Your task to perform on an android device: Open Google Chrome Image 0: 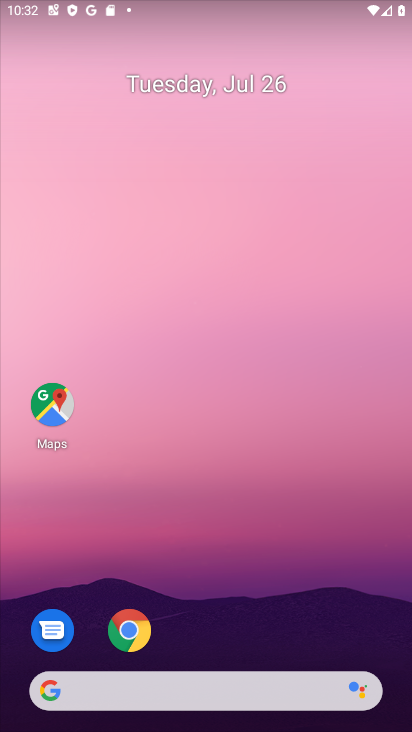
Step 0: click (56, 404)
Your task to perform on an android device: Open Google Chrome Image 1: 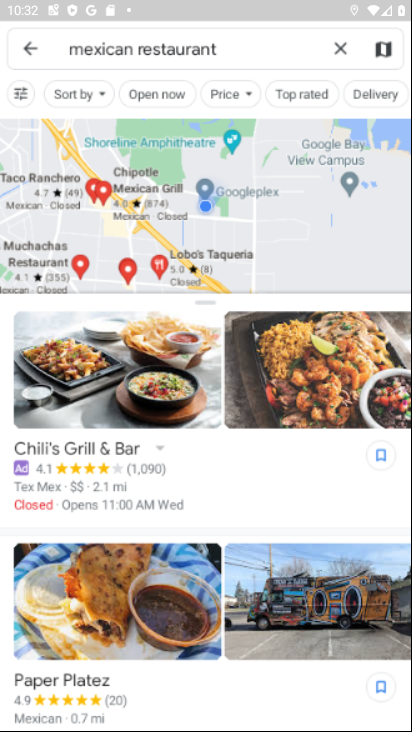
Step 1: press home button
Your task to perform on an android device: Open Google Chrome Image 2: 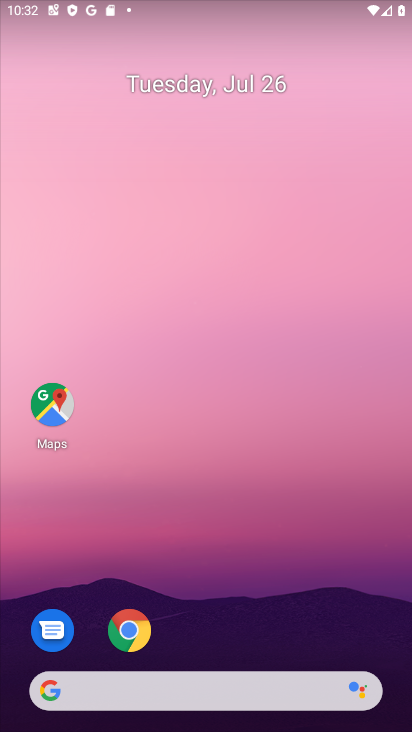
Step 2: click (130, 602)
Your task to perform on an android device: Open Google Chrome Image 3: 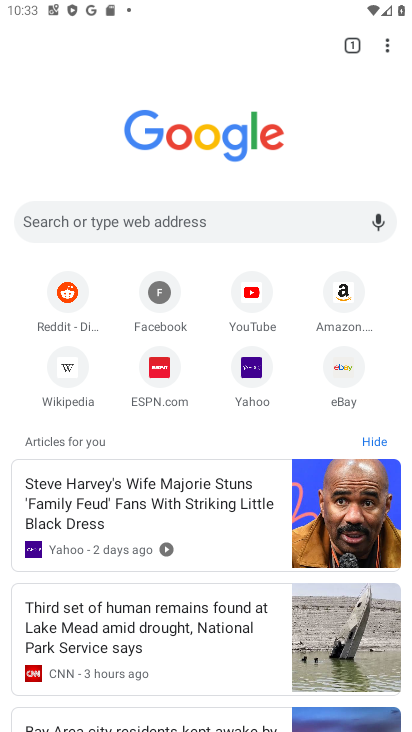
Step 3: task complete